Your task to perform on an android device: open app "Booking.com: Hotels and more" (install if not already installed) and enter user name: "misting@outlook.com" and password: "blandly" Image 0: 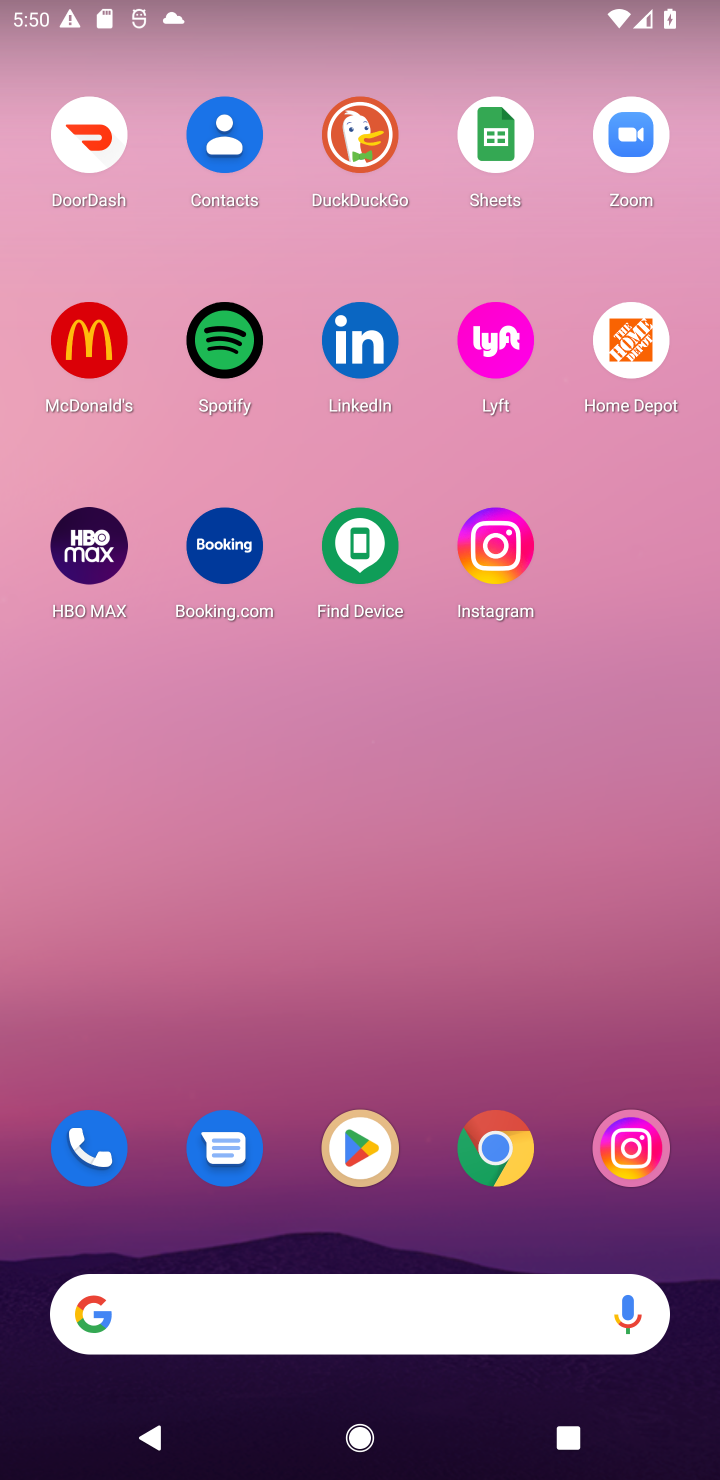
Step 0: drag from (494, 649) to (531, 55)
Your task to perform on an android device: open app "Booking.com: Hotels and more" (install if not already installed) and enter user name: "misting@outlook.com" and password: "blandly" Image 1: 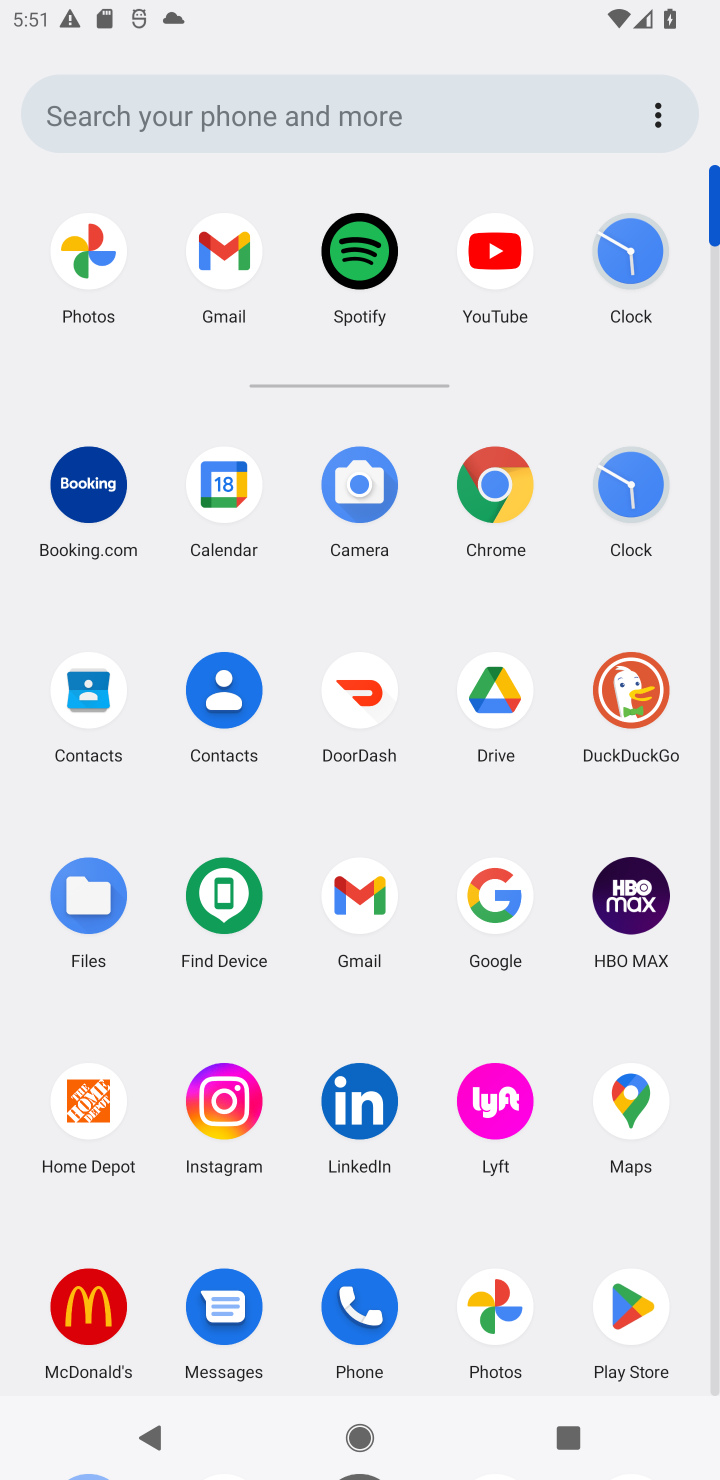
Step 1: click (624, 1330)
Your task to perform on an android device: open app "Booking.com: Hotels and more" (install if not already installed) and enter user name: "misting@outlook.com" and password: "blandly" Image 2: 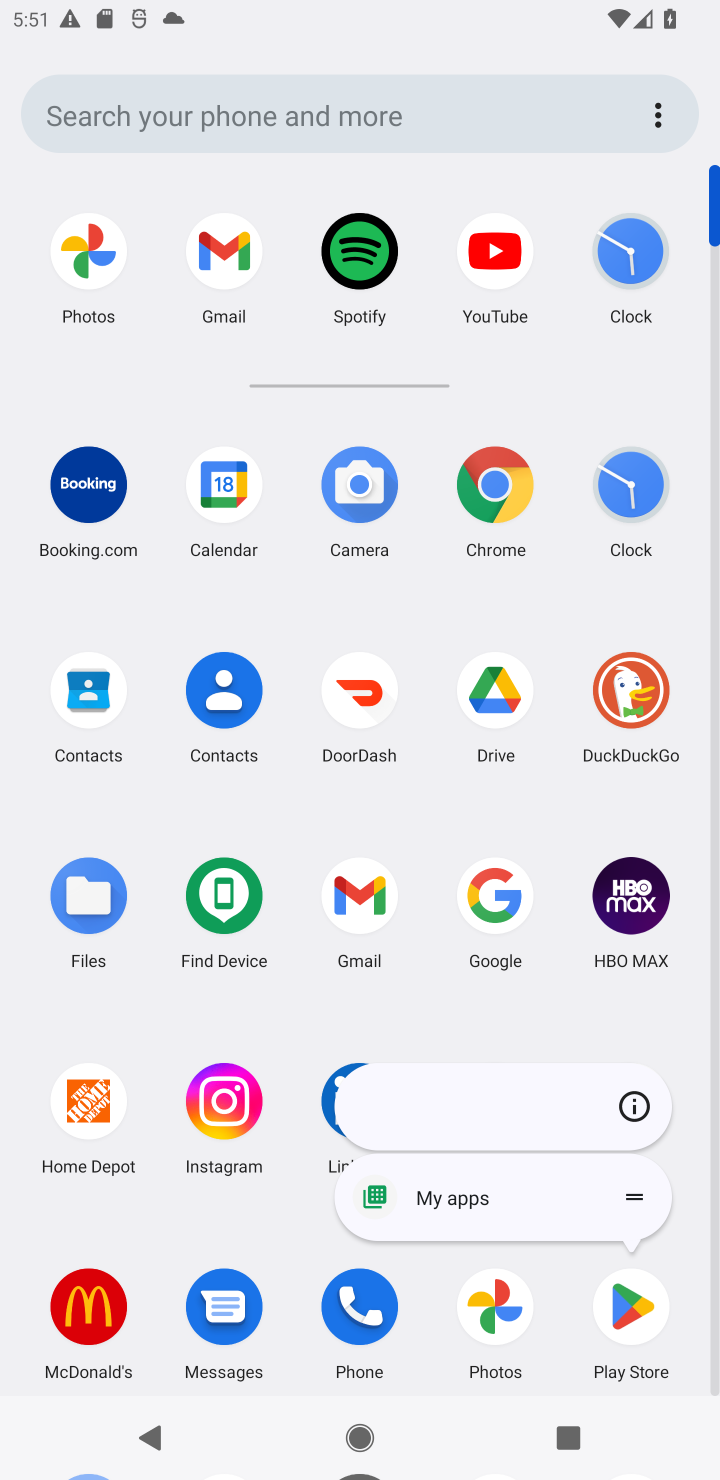
Step 2: drag from (208, 1193) to (456, 119)
Your task to perform on an android device: open app "Booking.com: Hotels and more" (install if not already installed) and enter user name: "misting@outlook.com" and password: "blandly" Image 3: 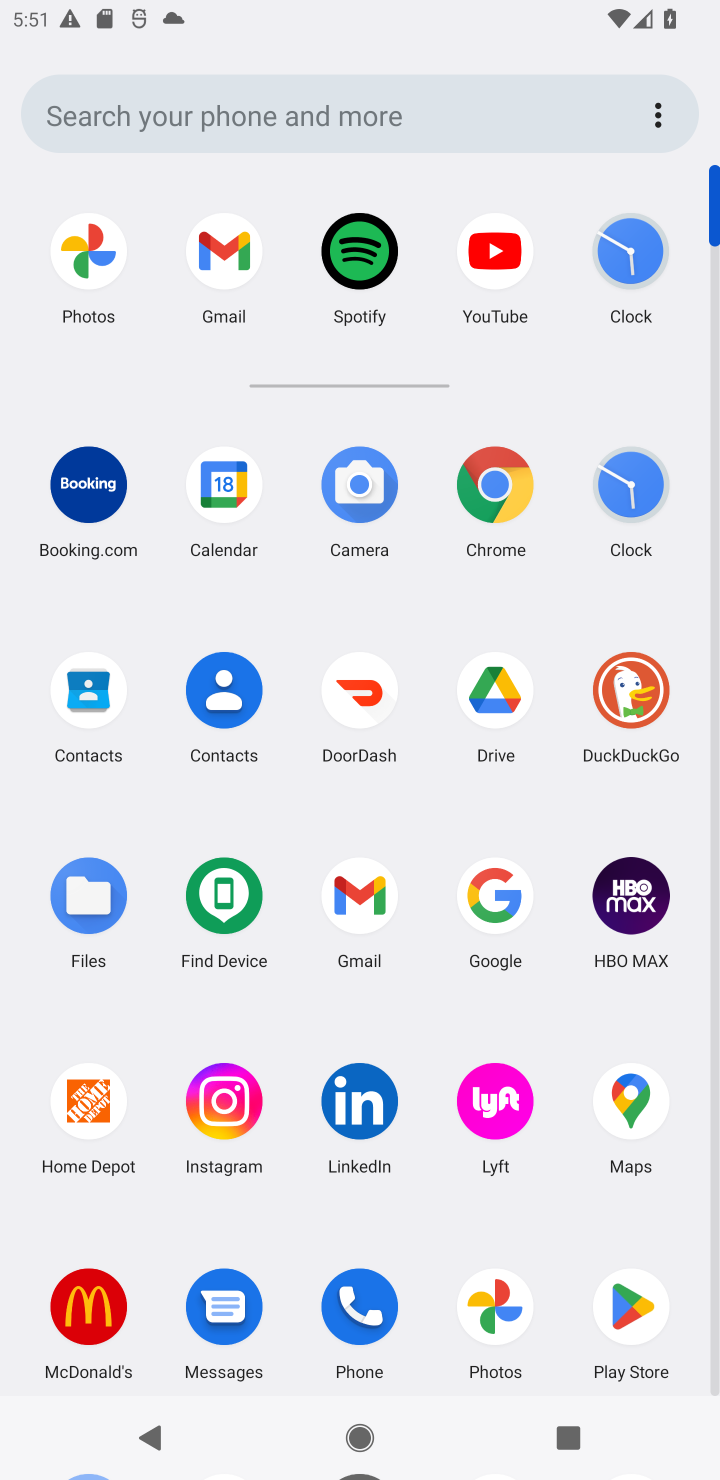
Step 3: click (637, 1329)
Your task to perform on an android device: open app "Booking.com: Hotels and more" (install if not already installed) and enter user name: "misting@outlook.com" and password: "blandly" Image 4: 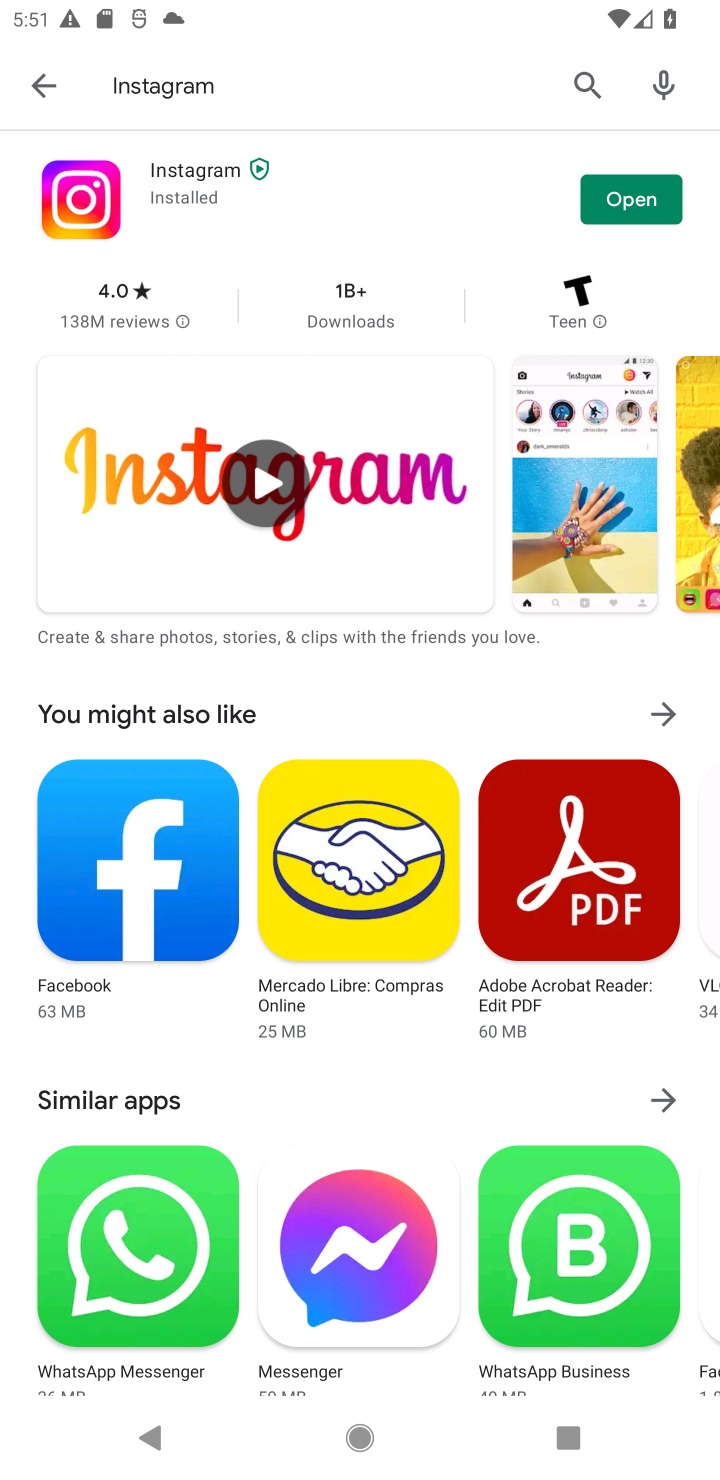
Step 4: press back button
Your task to perform on an android device: open app "Booking.com: Hotels and more" (install if not already installed) and enter user name: "misting@outlook.com" and password: "blandly" Image 5: 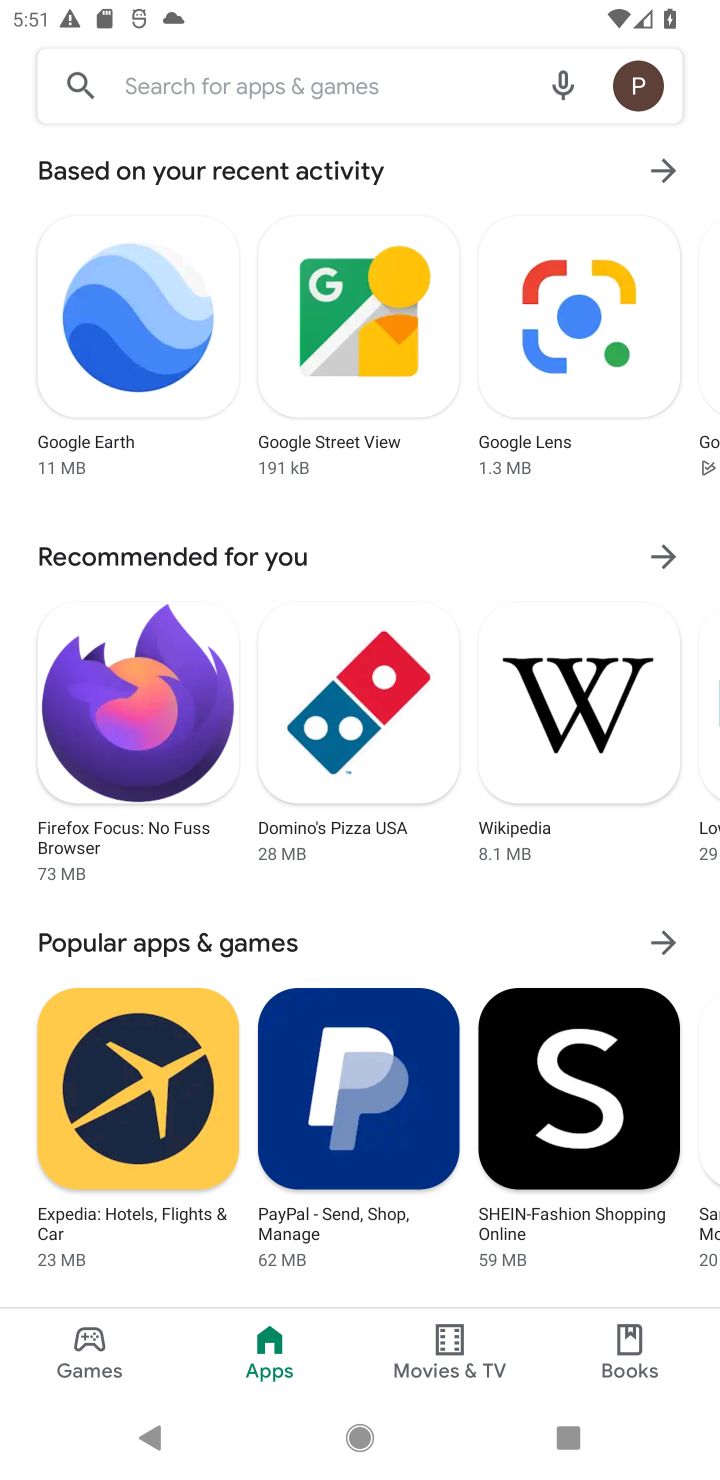
Step 5: click (285, 82)
Your task to perform on an android device: open app "Booking.com: Hotels and more" (install if not already installed) and enter user name: "misting@outlook.com" and password: "blandly" Image 6: 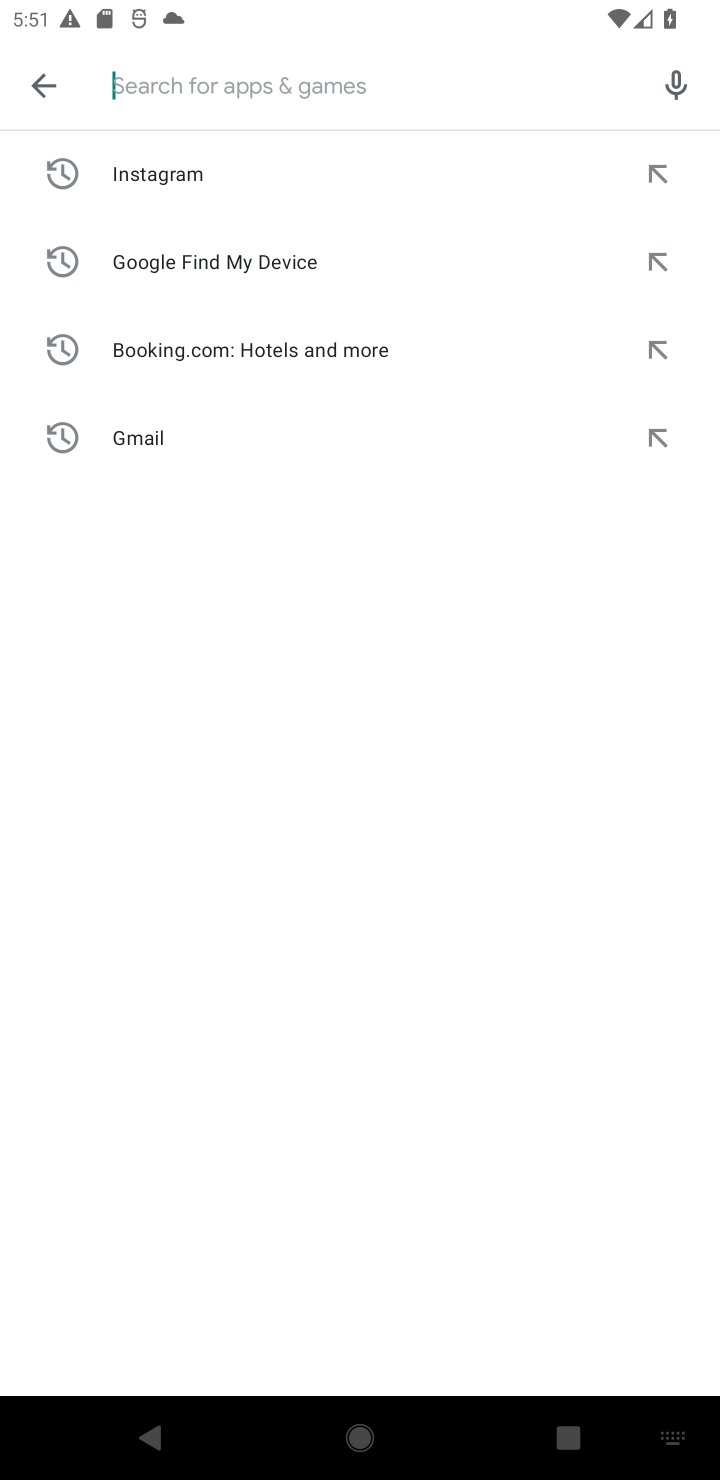
Step 6: type "Booking.com: Hotels and more"
Your task to perform on an android device: open app "Booking.com: Hotels and more" (install if not already installed) and enter user name: "misting@outlook.com" and password: "blandly" Image 7: 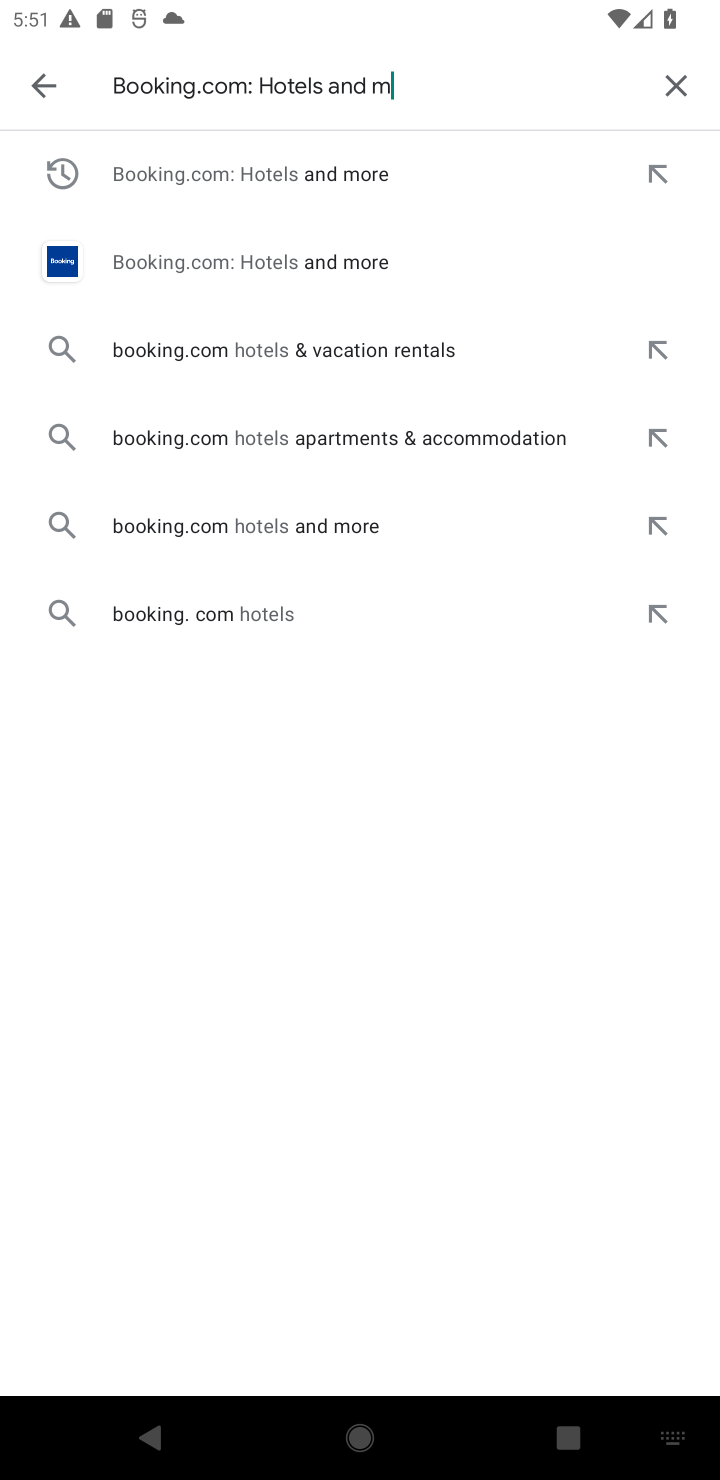
Step 7: press enter
Your task to perform on an android device: open app "Booking.com: Hotels and more" (install if not already installed) and enter user name: "misting@outlook.com" and password: "blandly" Image 8: 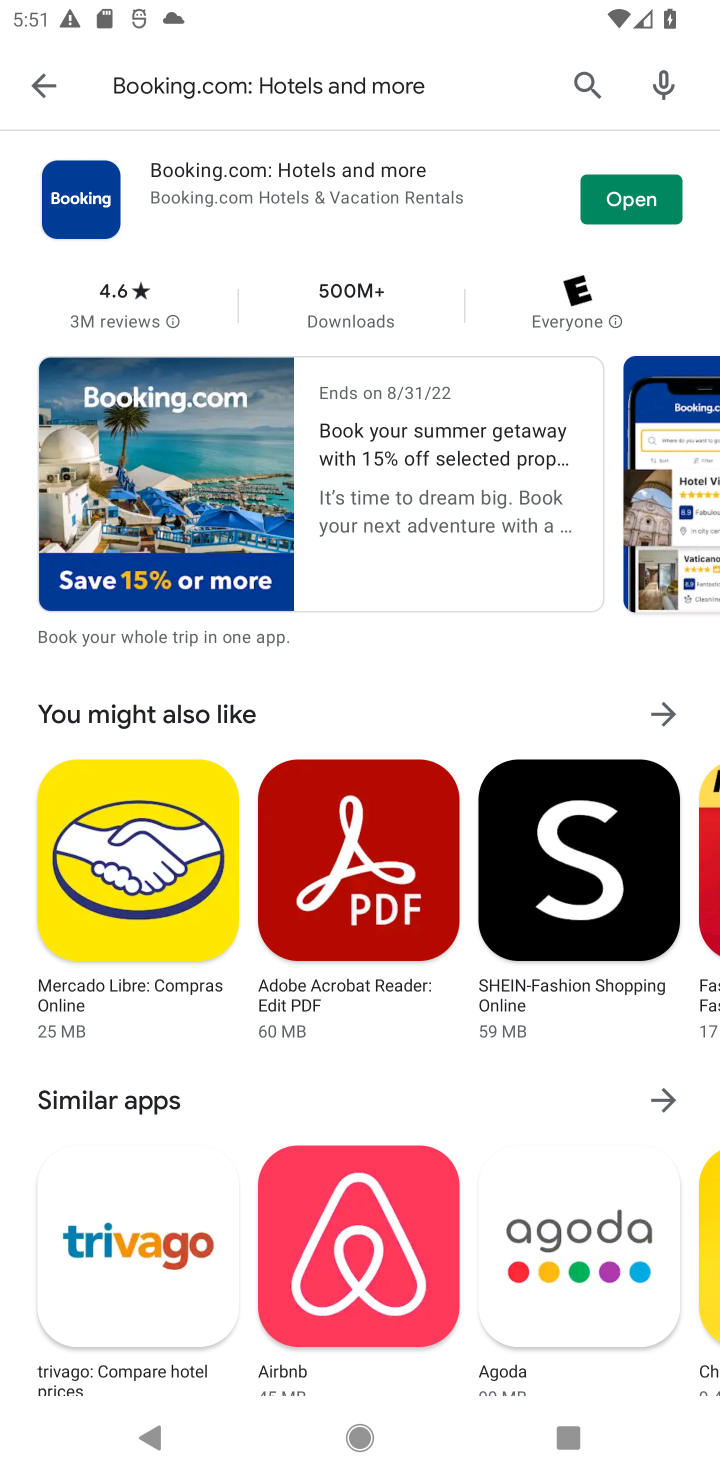
Step 8: click (630, 187)
Your task to perform on an android device: open app "Booking.com: Hotels and more" (install if not already installed) and enter user name: "misting@outlook.com" and password: "blandly" Image 9: 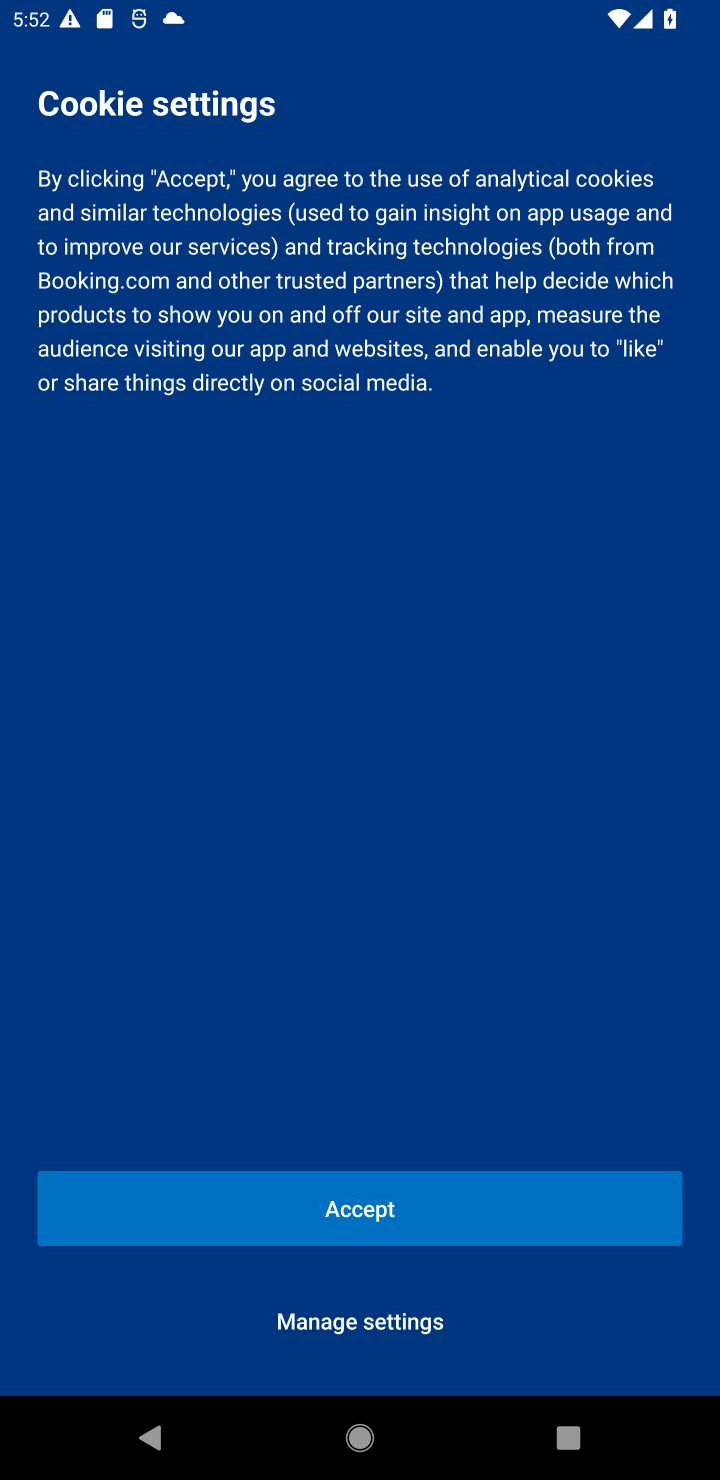
Step 9: press back button
Your task to perform on an android device: open app "Booking.com: Hotels and more" (install if not already installed) and enter user name: "misting@outlook.com" and password: "blandly" Image 10: 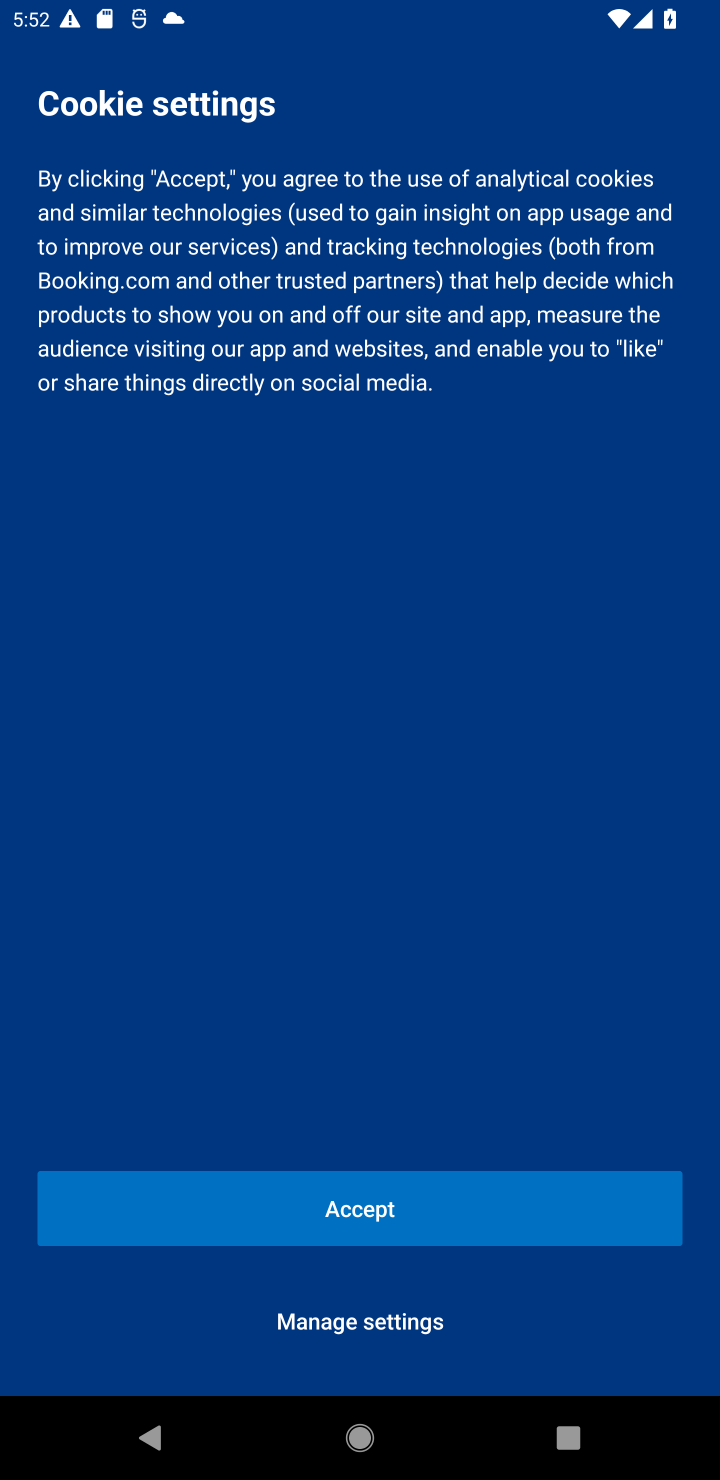
Step 10: click (327, 1220)
Your task to perform on an android device: open app "Booking.com: Hotels and more" (install if not already installed) and enter user name: "misting@outlook.com" and password: "blandly" Image 11: 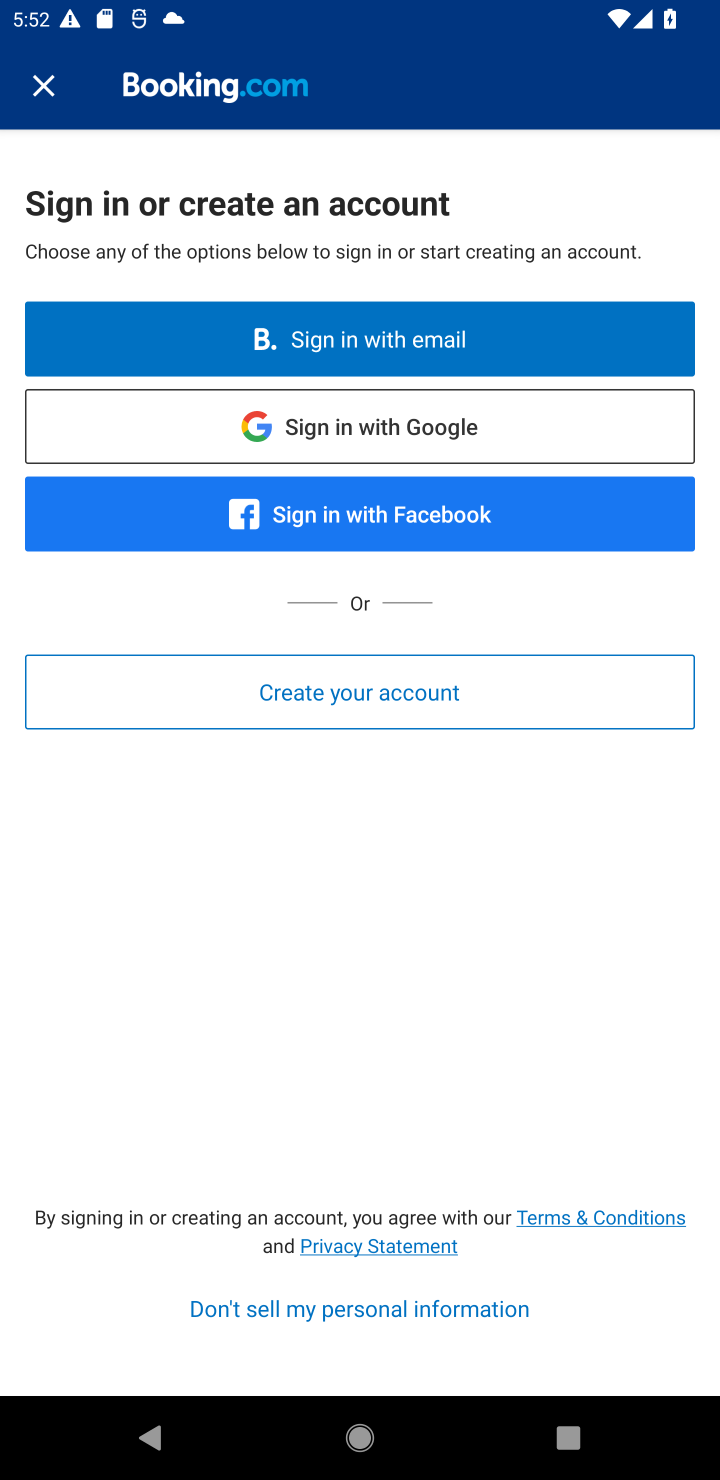
Step 11: click (514, 345)
Your task to perform on an android device: open app "Booking.com: Hotels and more" (install if not already installed) and enter user name: "misting@outlook.com" and password: "blandly" Image 12: 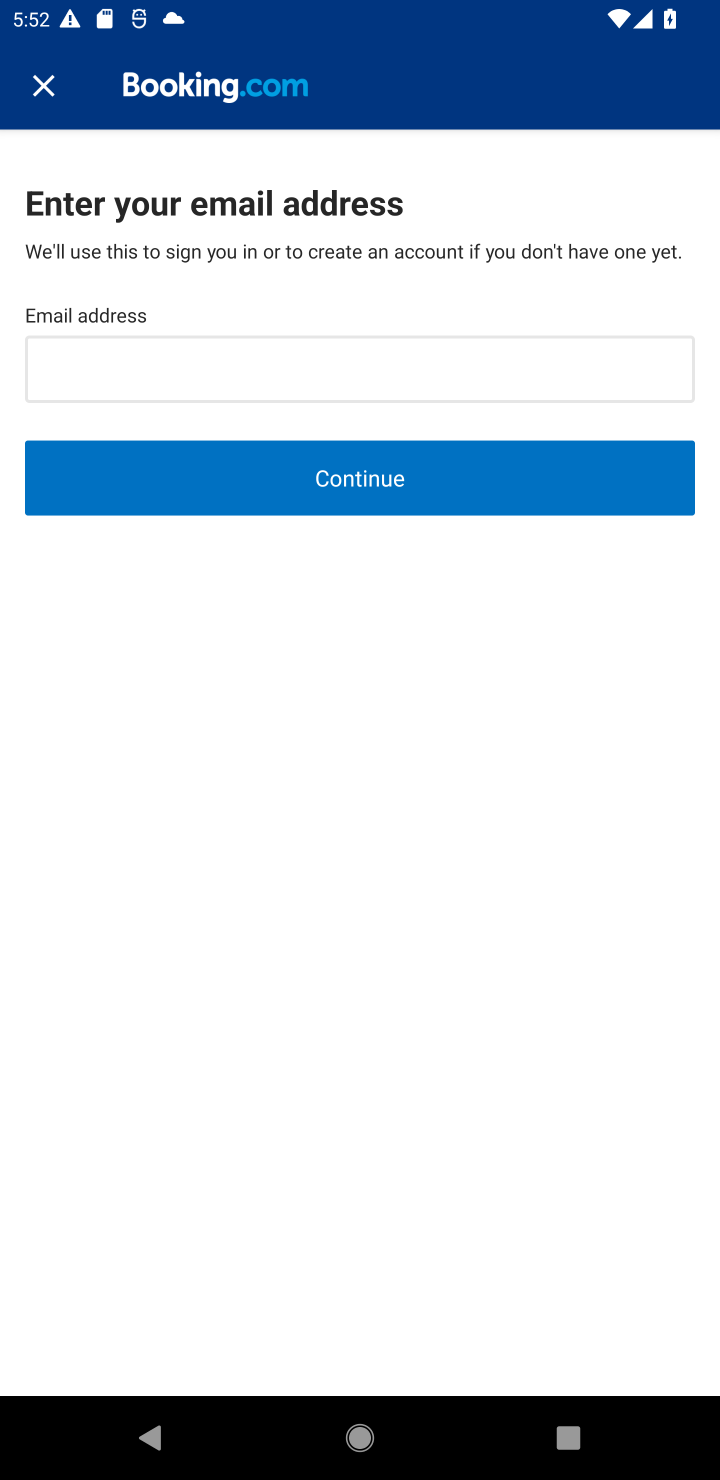
Step 12: click (360, 391)
Your task to perform on an android device: open app "Booking.com: Hotels and more" (install if not already installed) and enter user name: "misting@outlook.com" and password: "blandly" Image 13: 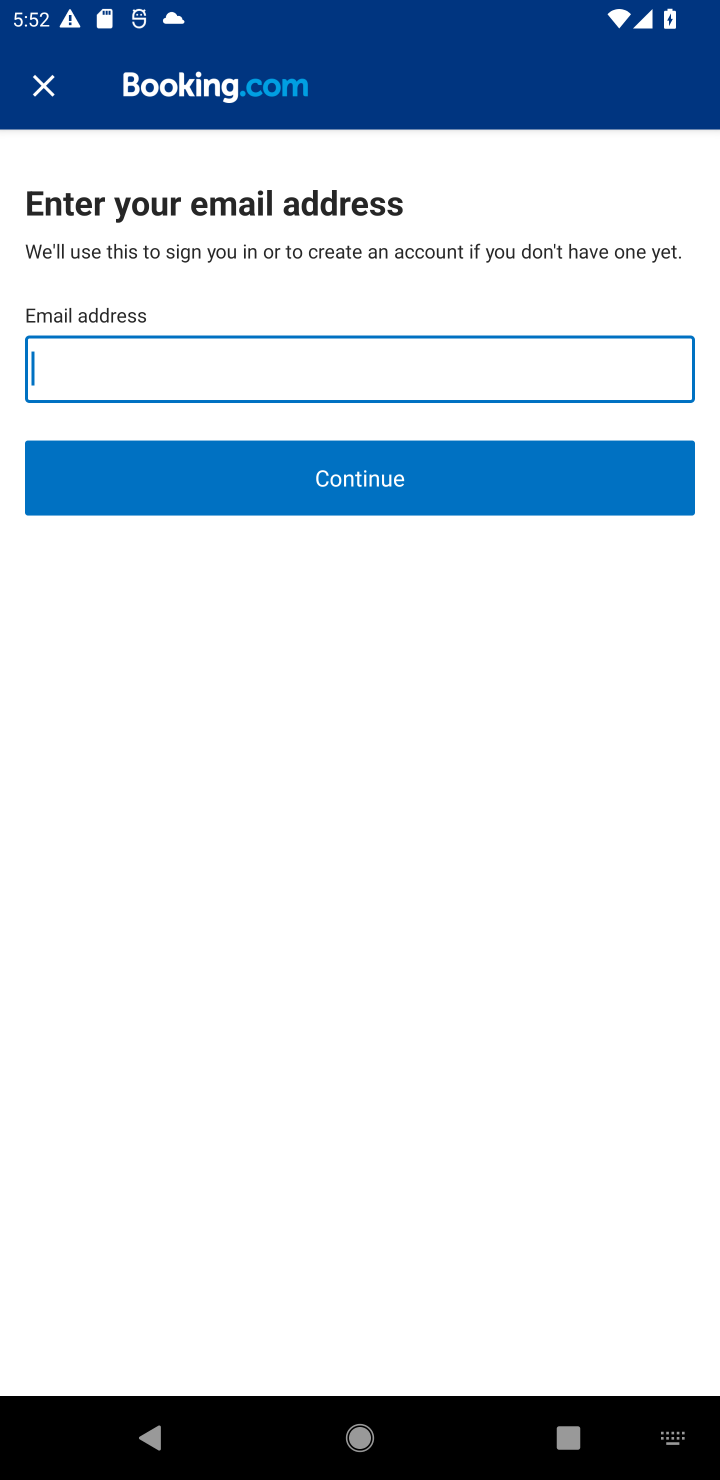
Step 13: type "misting@outlook.com"
Your task to perform on an android device: open app "Booking.com: Hotels and more" (install if not already installed) and enter user name: "misting@outlook.com" and password: "blandly" Image 14: 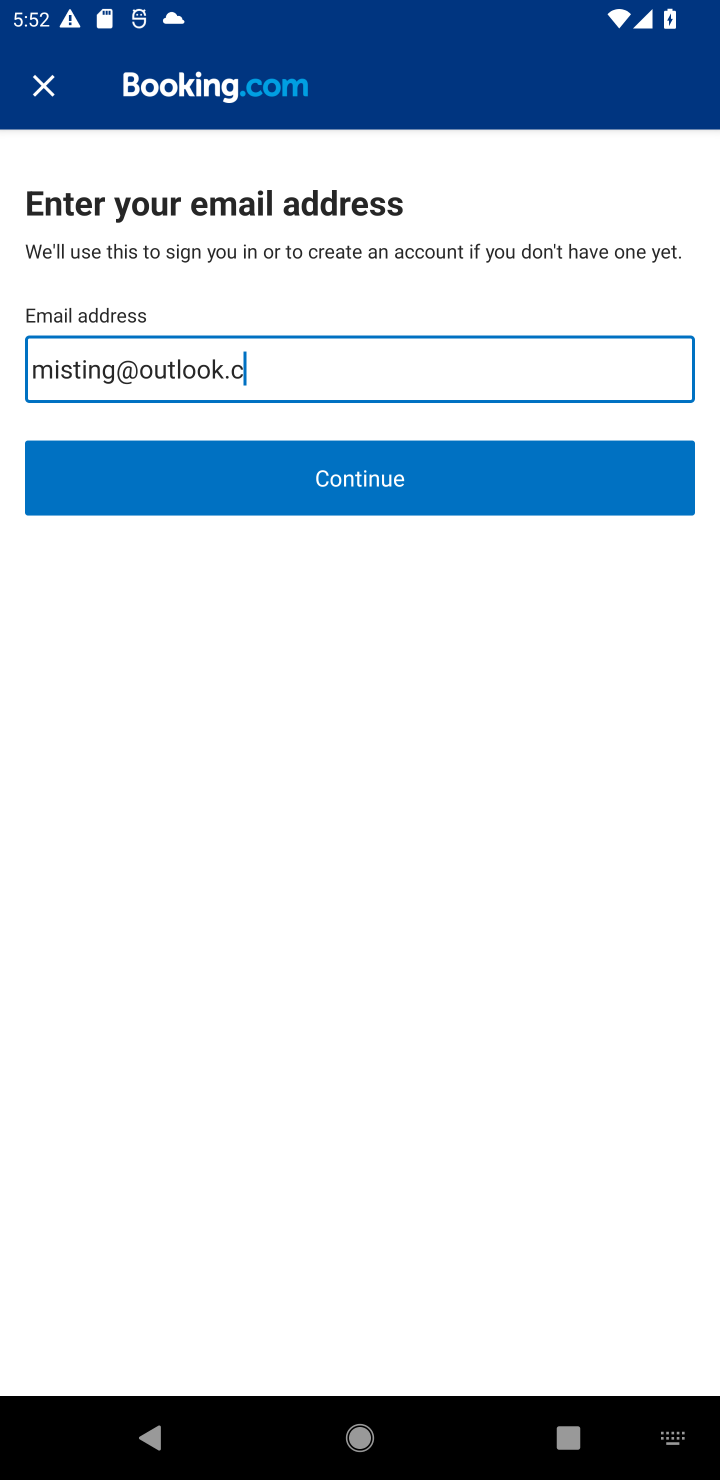
Step 14: press enter
Your task to perform on an android device: open app "Booking.com: Hotels and more" (install if not already installed) and enter user name: "misting@outlook.com" and password: "blandly" Image 15: 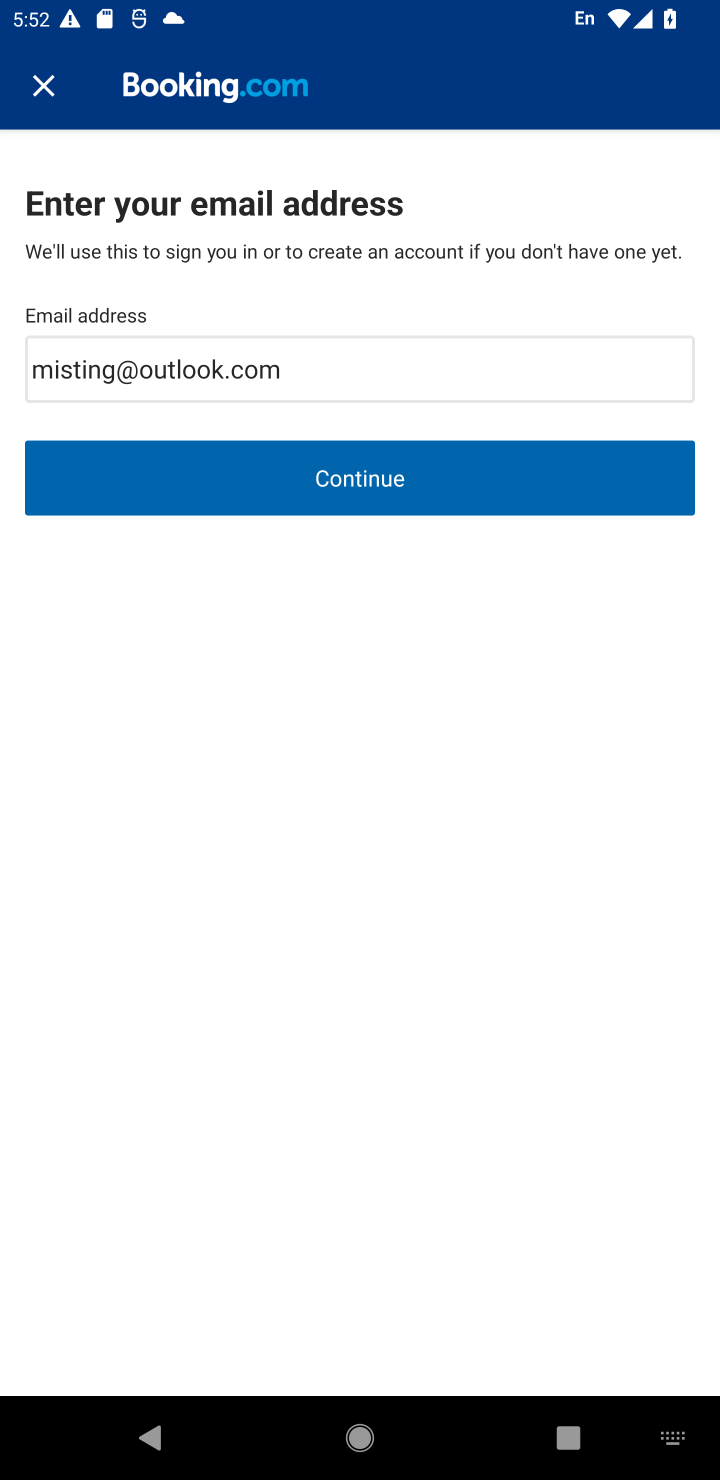
Step 15: click (346, 491)
Your task to perform on an android device: open app "Booking.com: Hotels and more" (install if not already installed) and enter user name: "misting@outlook.com" and password: "blandly" Image 16: 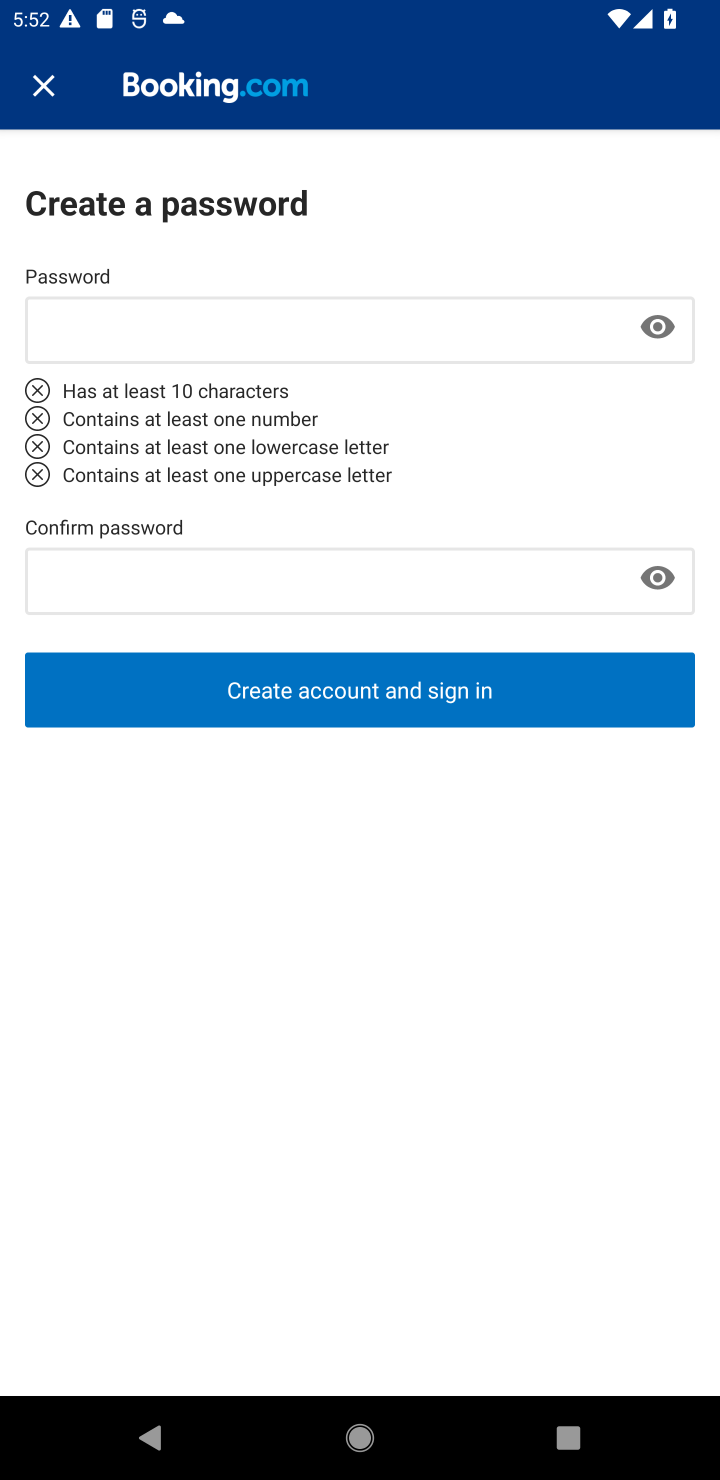
Step 16: click (71, 307)
Your task to perform on an android device: open app "Booking.com: Hotels and more" (install if not already installed) and enter user name: "misting@outlook.com" and password: "blandly" Image 17: 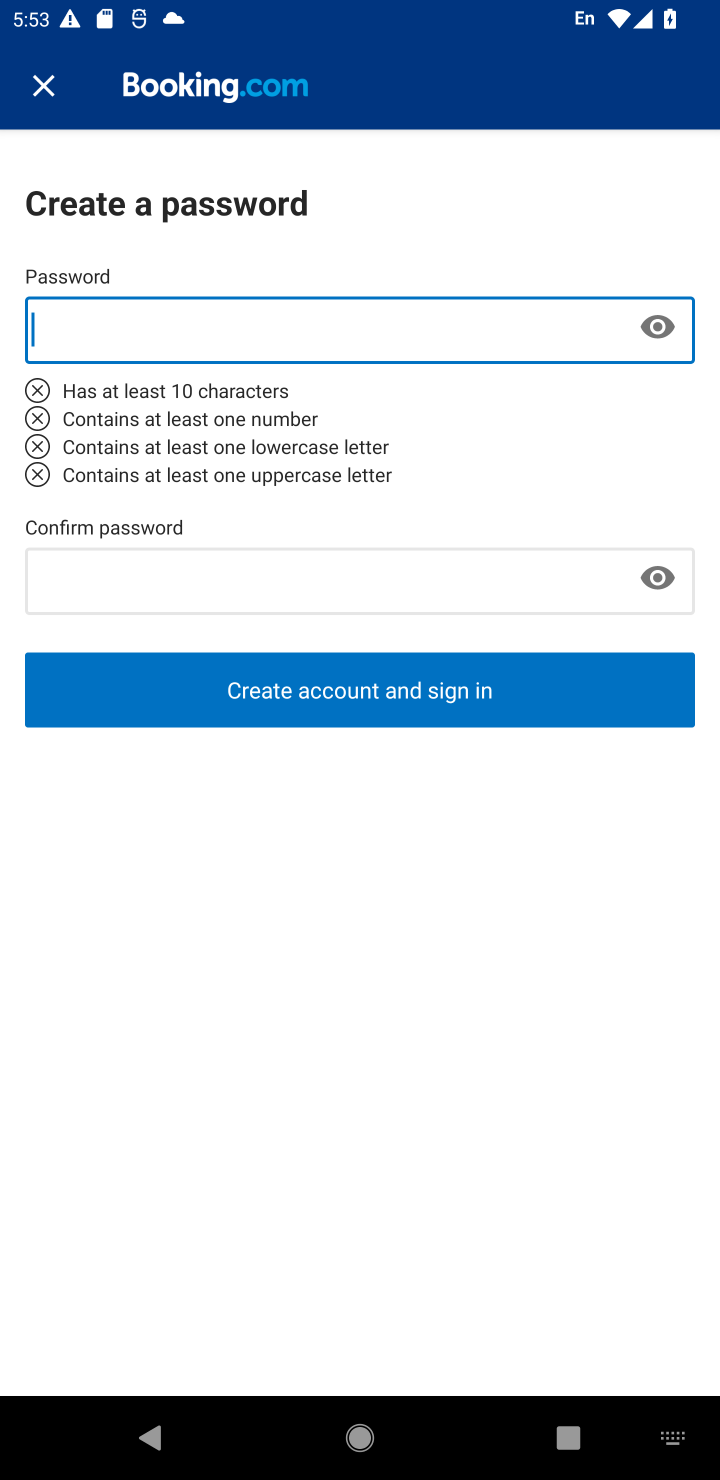
Step 17: type "blandly"
Your task to perform on an android device: open app "Booking.com: Hotels and more" (install if not already installed) and enter user name: "misting@outlook.com" and password: "blandly" Image 18: 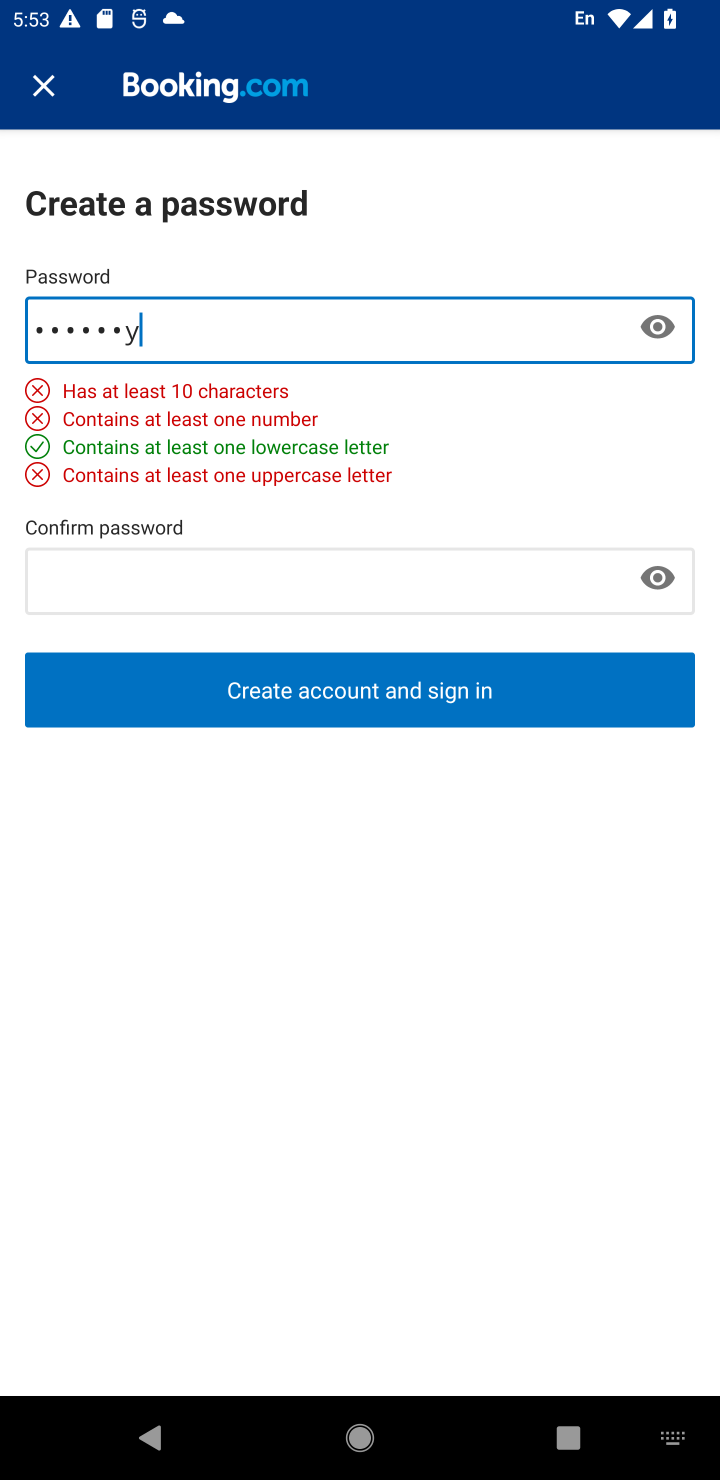
Step 18: press enter
Your task to perform on an android device: open app "Booking.com: Hotels and more" (install if not already installed) and enter user name: "misting@outlook.com" and password: "blandly" Image 19: 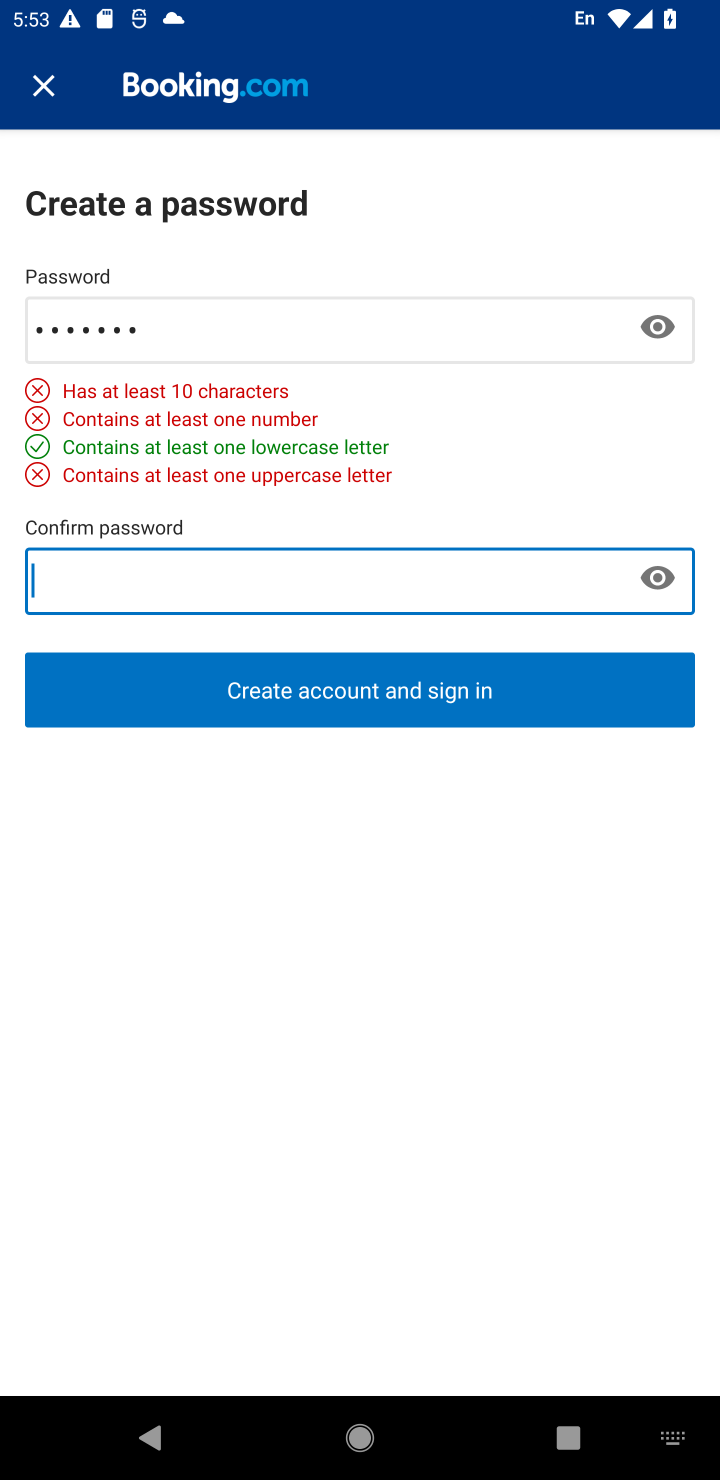
Step 19: task complete